Your task to perform on an android device: toggle data saver in the chrome app Image 0: 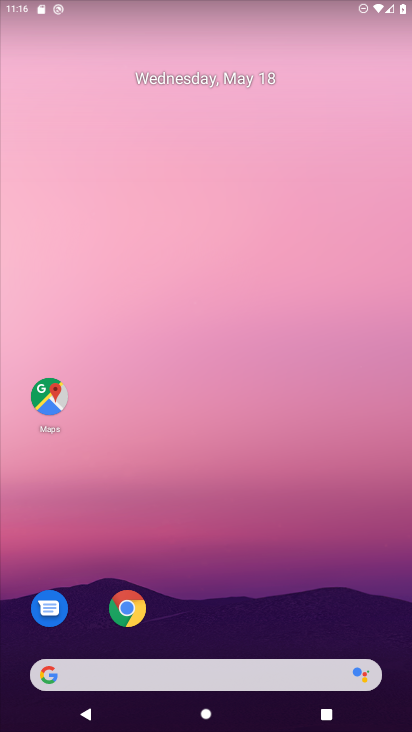
Step 0: click (124, 607)
Your task to perform on an android device: toggle data saver in the chrome app Image 1: 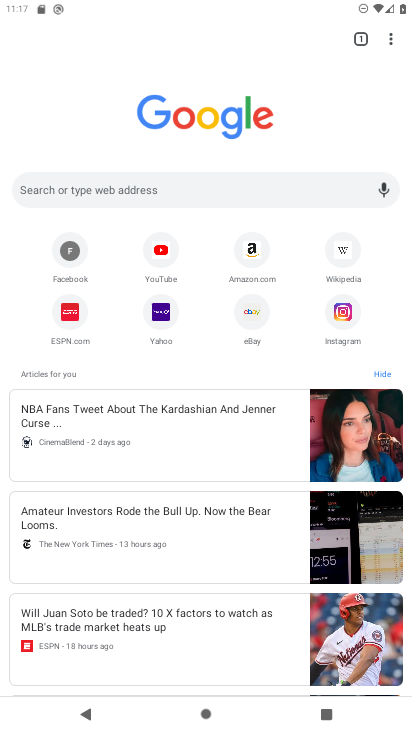
Step 1: click (390, 39)
Your task to perform on an android device: toggle data saver in the chrome app Image 2: 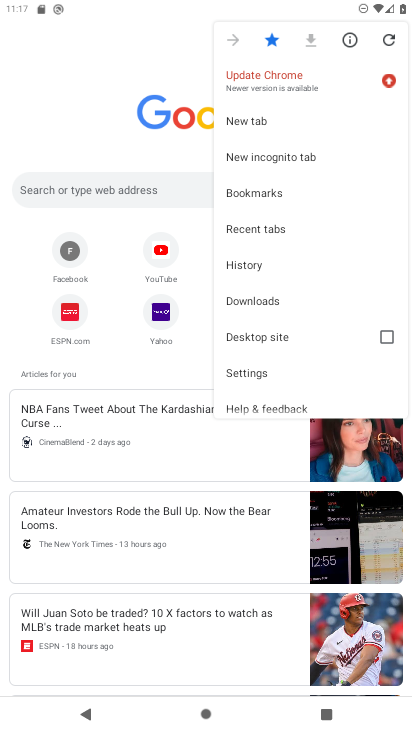
Step 2: click (251, 371)
Your task to perform on an android device: toggle data saver in the chrome app Image 3: 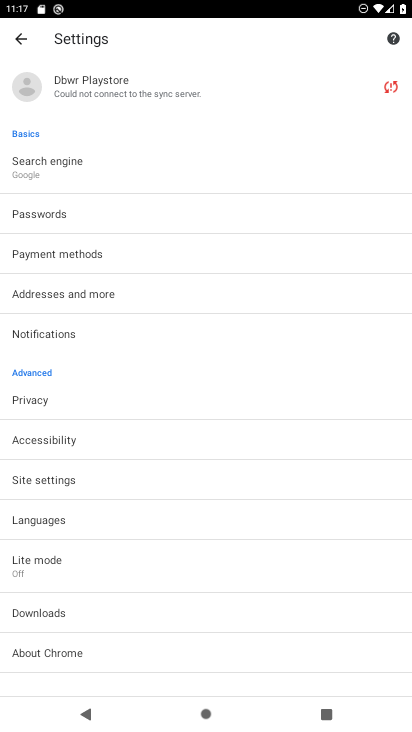
Step 3: click (52, 562)
Your task to perform on an android device: toggle data saver in the chrome app Image 4: 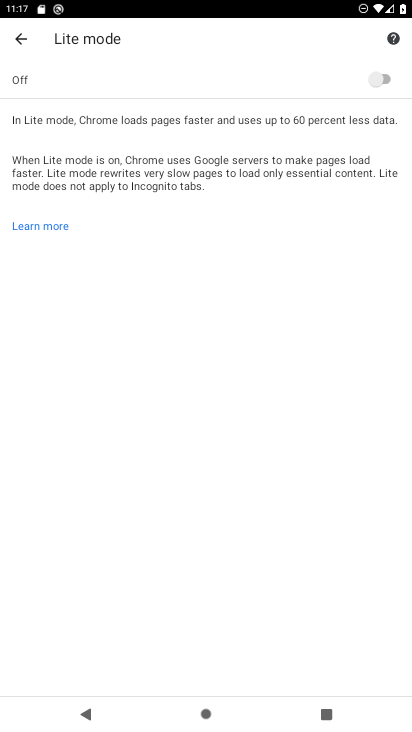
Step 4: click (378, 79)
Your task to perform on an android device: toggle data saver in the chrome app Image 5: 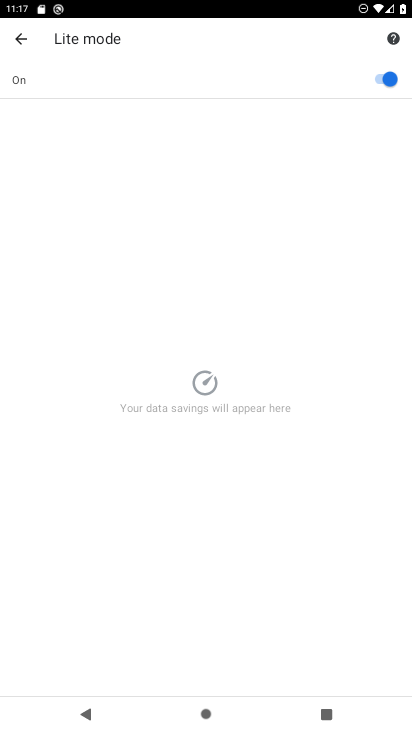
Step 5: task complete